Your task to perform on an android device: Open maps Image 0: 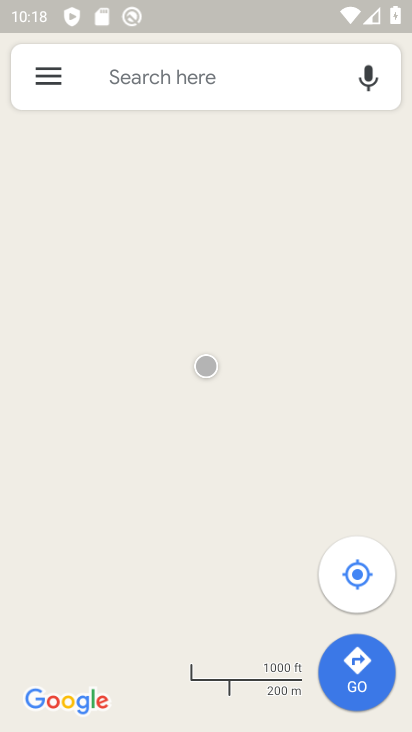
Step 0: press home button
Your task to perform on an android device: Open maps Image 1: 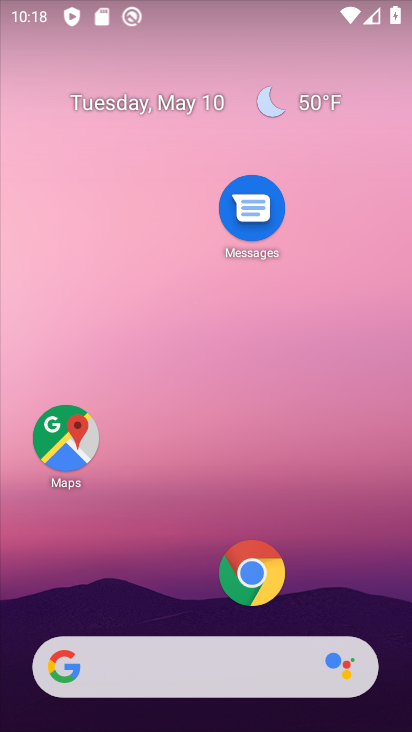
Step 1: click (70, 440)
Your task to perform on an android device: Open maps Image 2: 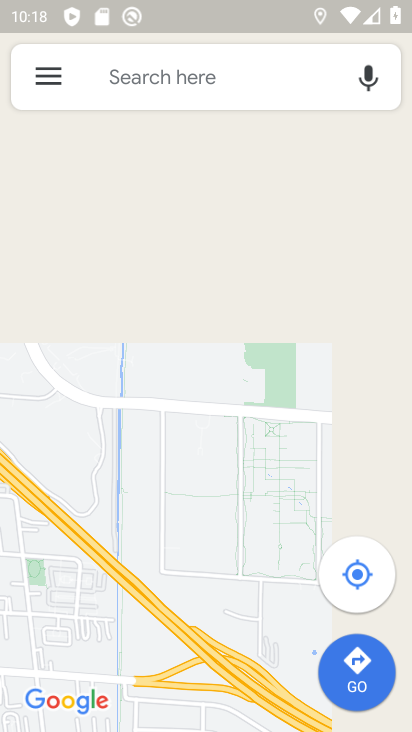
Step 2: task complete